Your task to perform on an android device: Go to calendar. Show me events next week Image 0: 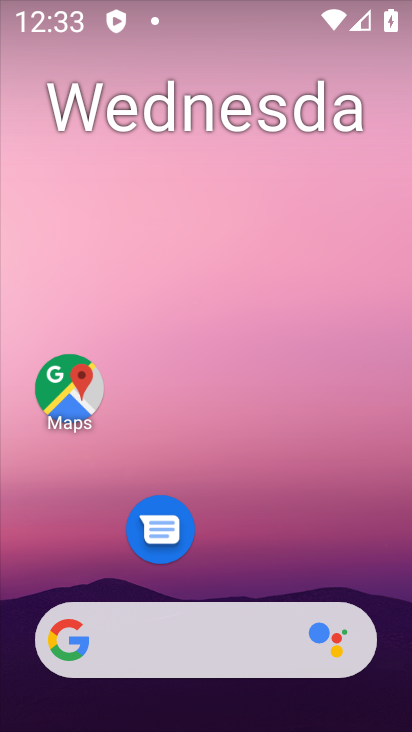
Step 0: drag from (244, 614) to (239, 32)
Your task to perform on an android device: Go to calendar. Show me events next week Image 1: 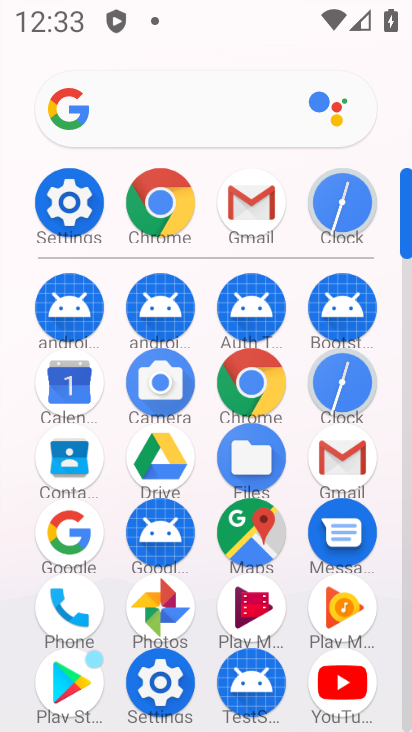
Step 1: click (66, 388)
Your task to perform on an android device: Go to calendar. Show me events next week Image 2: 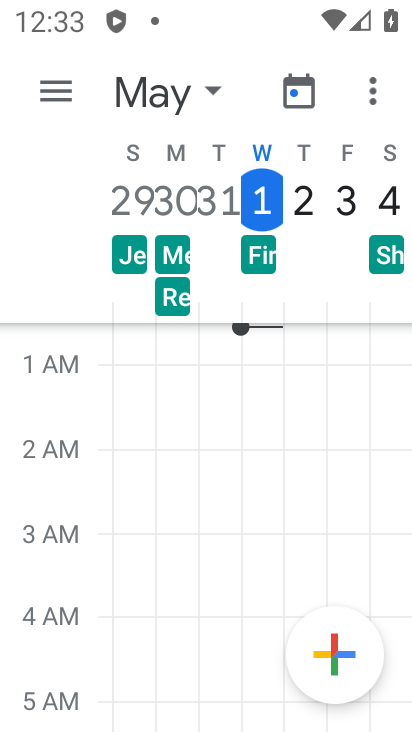
Step 2: task complete